Your task to perform on an android device: turn smart compose on in the gmail app Image 0: 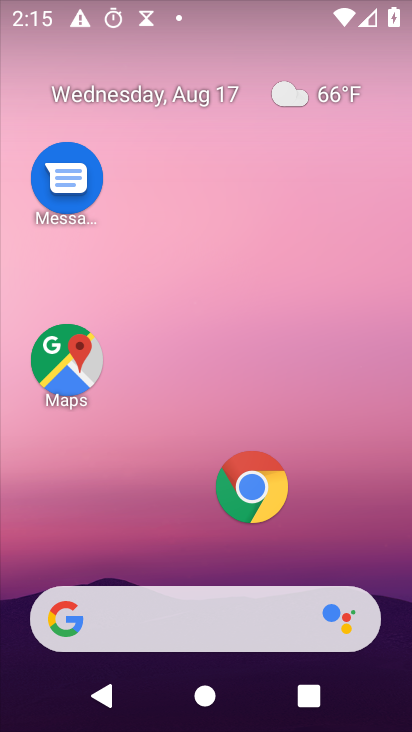
Step 0: drag from (182, 552) to (170, 1)
Your task to perform on an android device: turn smart compose on in the gmail app Image 1: 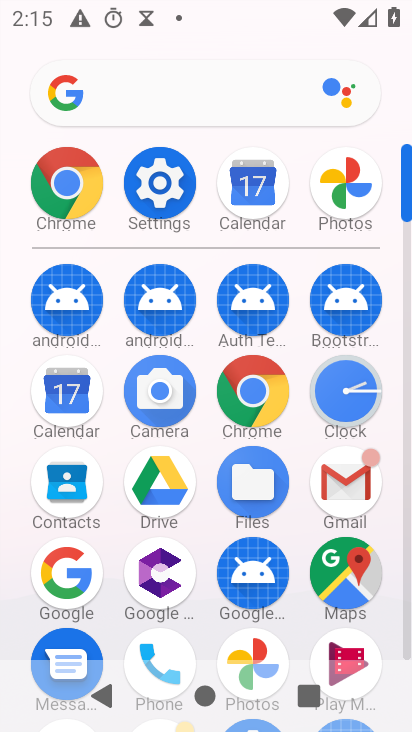
Step 1: click (366, 481)
Your task to perform on an android device: turn smart compose on in the gmail app Image 2: 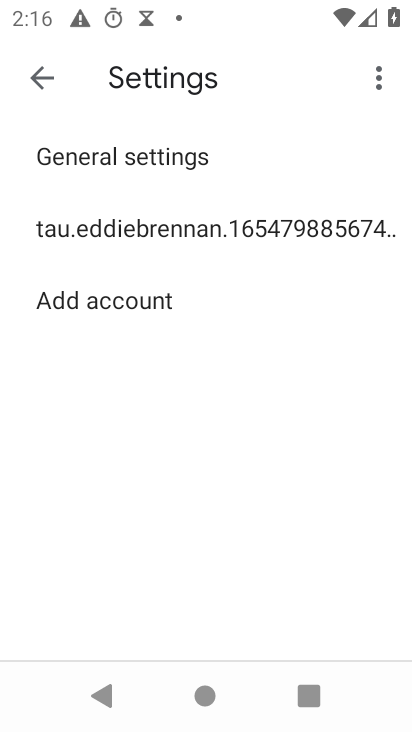
Step 2: click (172, 229)
Your task to perform on an android device: turn smart compose on in the gmail app Image 3: 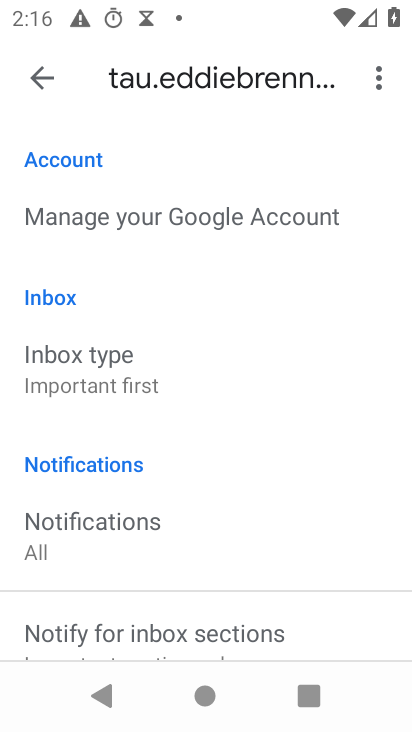
Step 3: task complete